Your task to perform on an android device: find which apps use the phone's location Image 0: 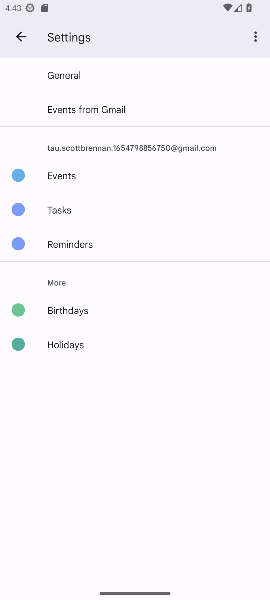
Step 0: press home button
Your task to perform on an android device: find which apps use the phone's location Image 1: 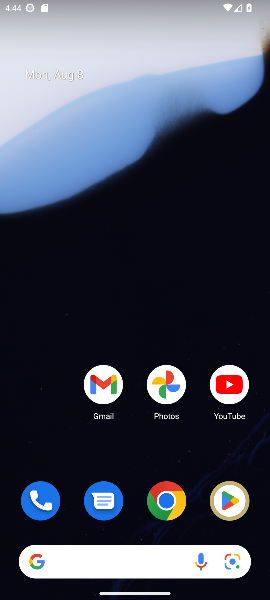
Step 1: drag from (18, 593) to (85, 142)
Your task to perform on an android device: find which apps use the phone's location Image 2: 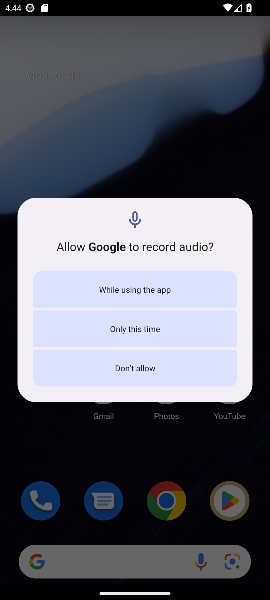
Step 2: click (151, 287)
Your task to perform on an android device: find which apps use the phone's location Image 3: 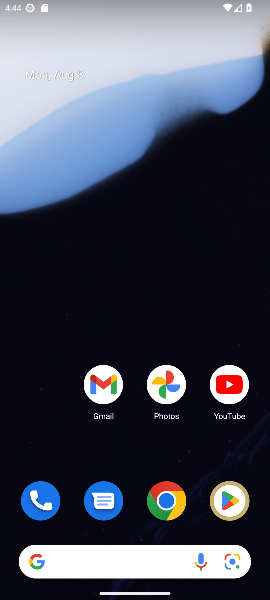
Step 3: click (9, 570)
Your task to perform on an android device: find which apps use the phone's location Image 4: 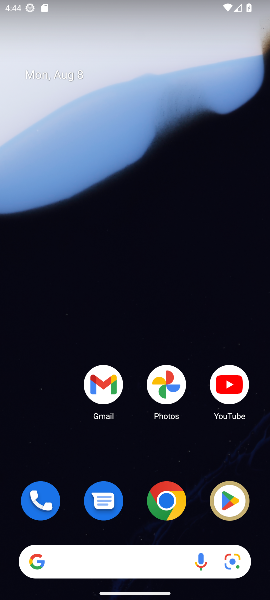
Step 4: drag from (9, 570) to (107, 224)
Your task to perform on an android device: find which apps use the phone's location Image 5: 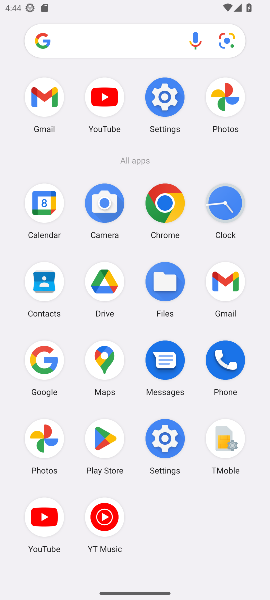
Step 5: click (157, 441)
Your task to perform on an android device: find which apps use the phone's location Image 6: 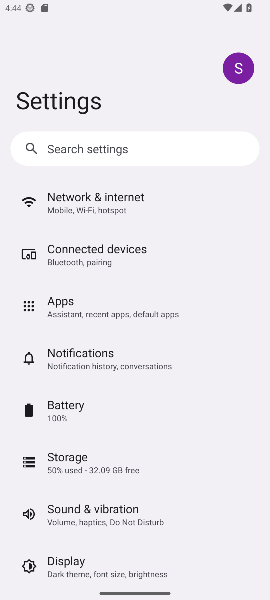
Step 6: drag from (194, 537) to (185, 226)
Your task to perform on an android device: find which apps use the phone's location Image 7: 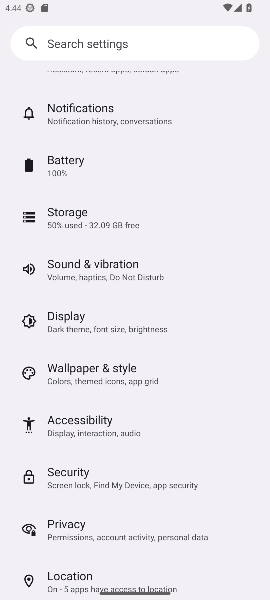
Step 7: click (58, 581)
Your task to perform on an android device: find which apps use the phone's location Image 8: 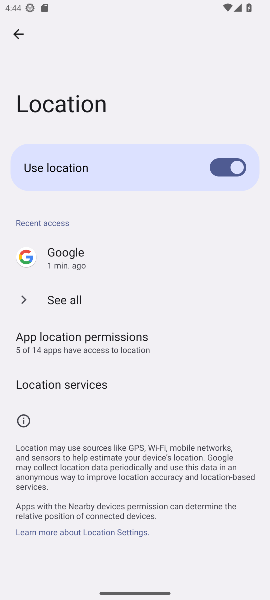
Step 8: click (90, 337)
Your task to perform on an android device: find which apps use the phone's location Image 9: 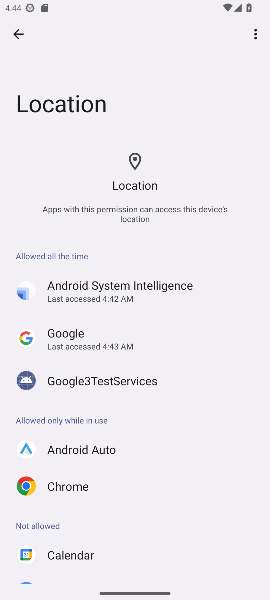
Step 9: task complete